Your task to perform on an android device: Do I have any events today? Image 0: 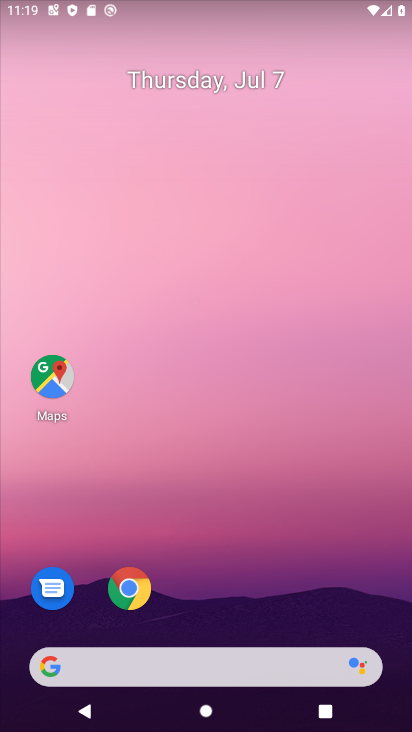
Step 0: drag from (226, 606) to (253, 61)
Your task to perform on an android device: Do I have any events today? Image 1: 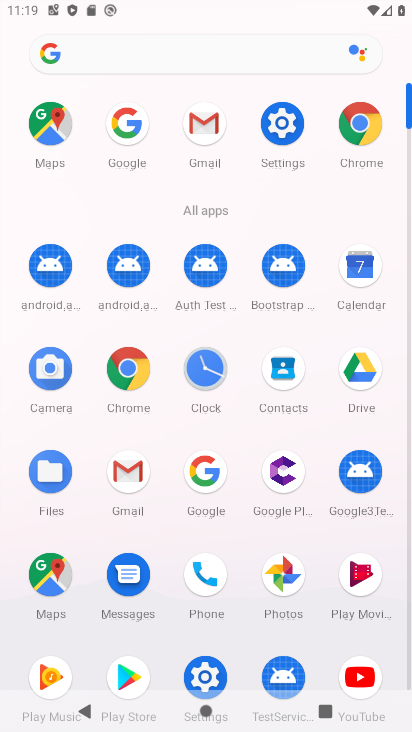
Step 1: click (357, 266)
Your task to perform on an android device: Do I have any events today? Image 2: 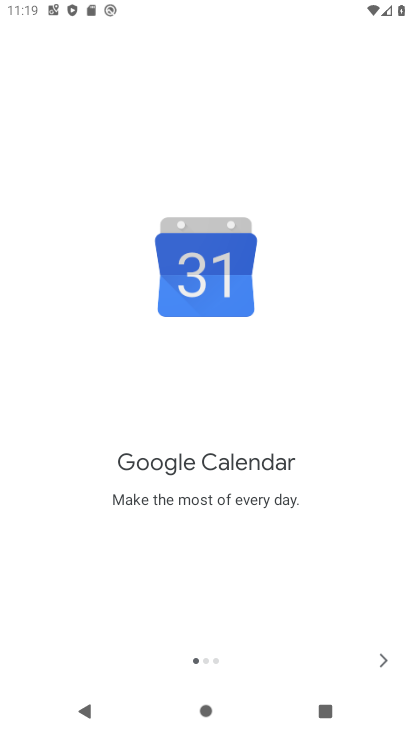
Step 2: click (383, 660)
Your task to perform on an android device: Do I have any events today? Image 3: 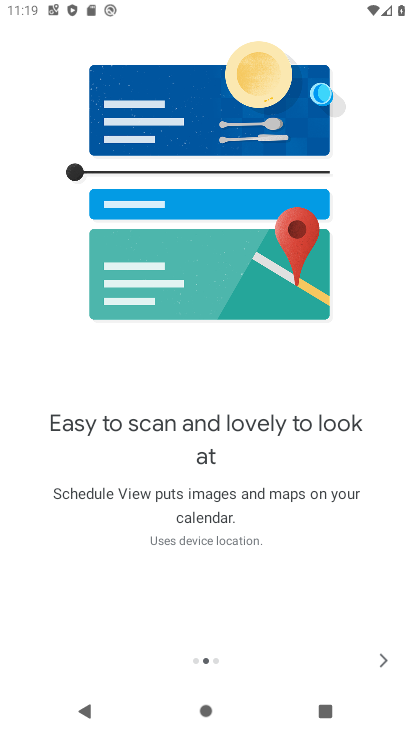
Step 3: click (388, 657)
Your task to perform on an android device: Do I have any events today? Image 4: 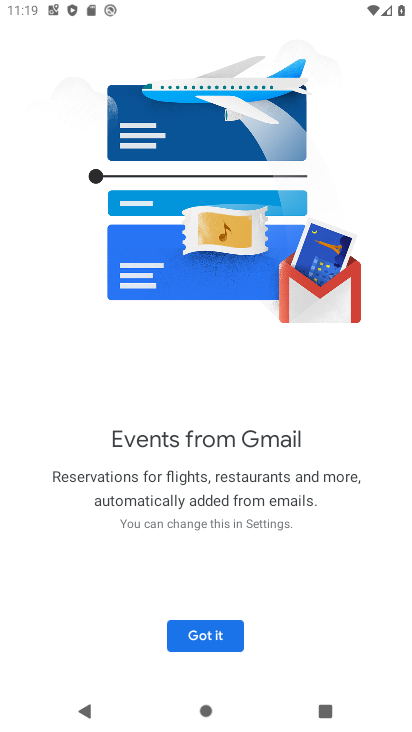
Step 4: click (187, 644)
Your task to perform on an android device: Do I have any events today? Image 5: 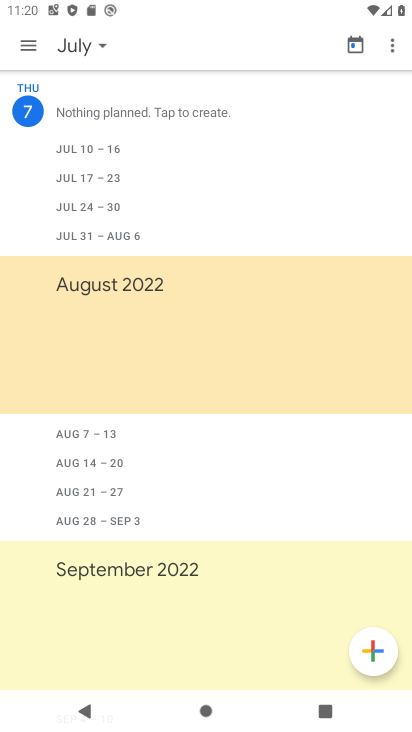
Step 5: click (92, 39)
Your task to perform on an android device: Do I have any events today? Image 6: 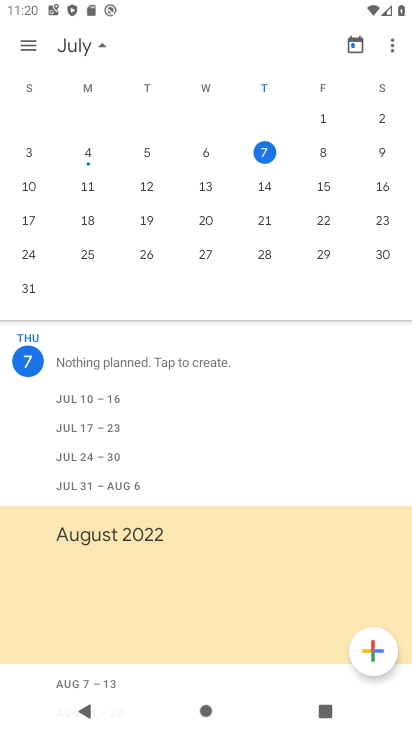
Step 6: click (262, 151)
Your task to perform on an android device: Do I have any events today? Image 7: 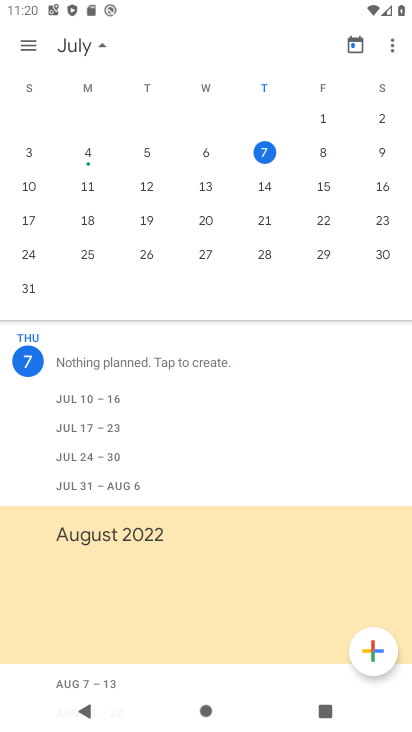
Step 7: click (257, 145)
Your task to perform on an android device: Do I have any events today? Image 8: 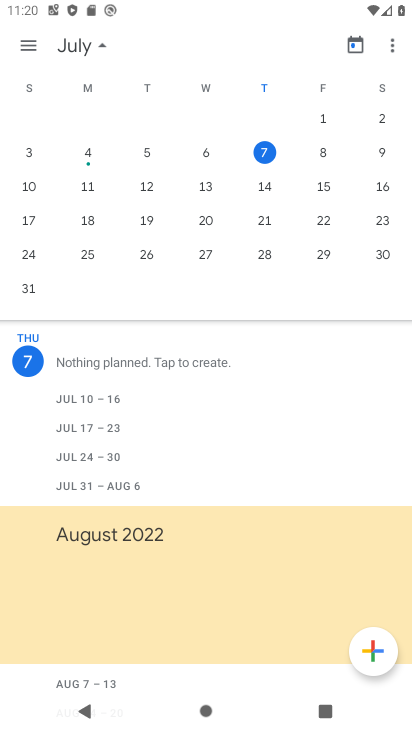
Step 8: task complete